Your task to perform on an android device: delete the emails in spam in the gmail app Image 0: 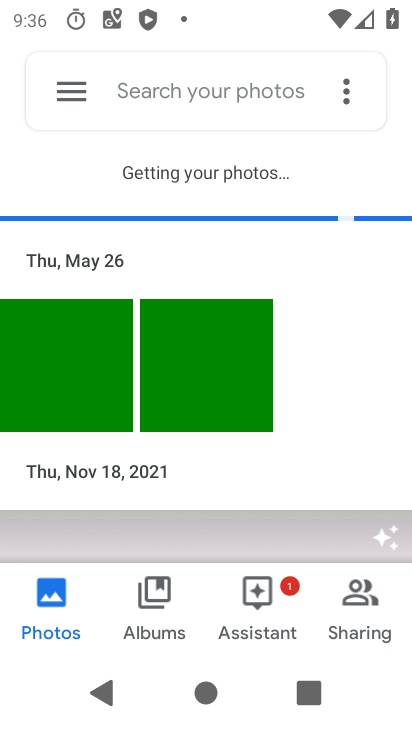
Step 0: press home button
Your task to perform on an android device: delete the emails in spam in the gmail app Image 1: 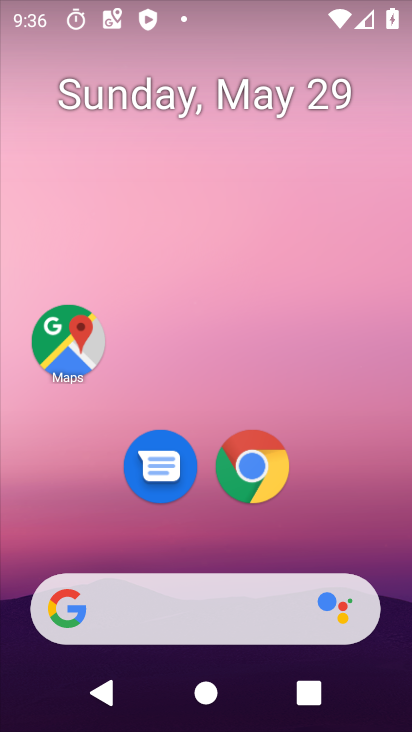
Step 1: drag from (210, 551) to (232, 196)
Your task to perform on an android device: delete the emails in spam in the gmail app Image 2: 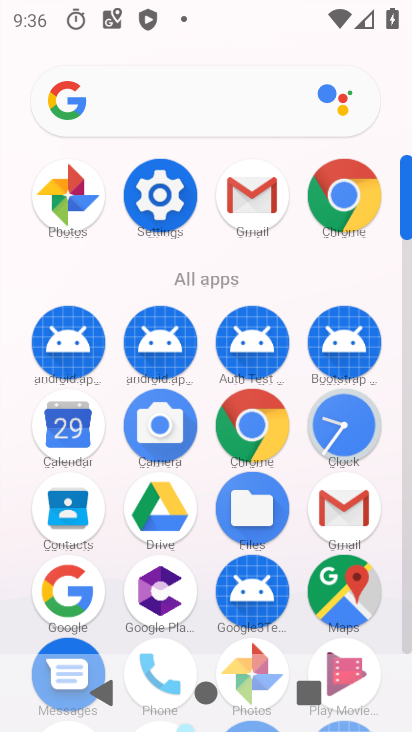
Step 2: click (234, 204)
Your task to perform on an android device: delete the emails in spam in the gmail app Image 3: 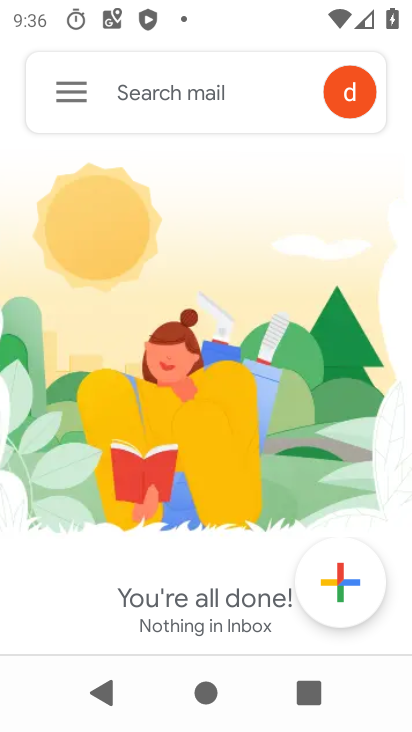
Step 3: click (57, 88)
Your task to perform on an android device: delete the emails in spam in the gmail app Image 4: 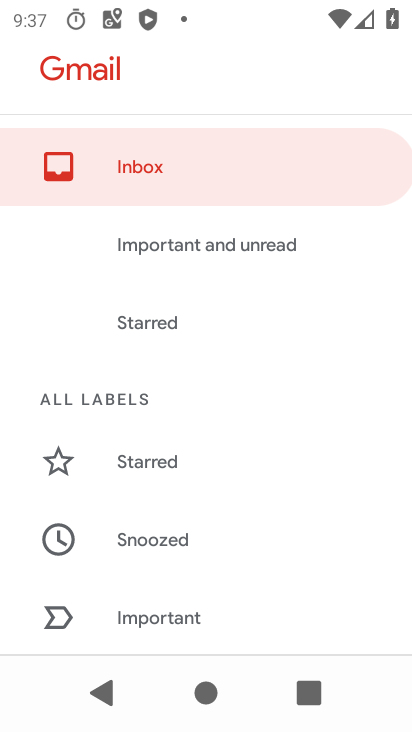
Step 4: click (235, 262)
Your task to perform on an android device: delete the emails in spam in the gmail app Image 5: 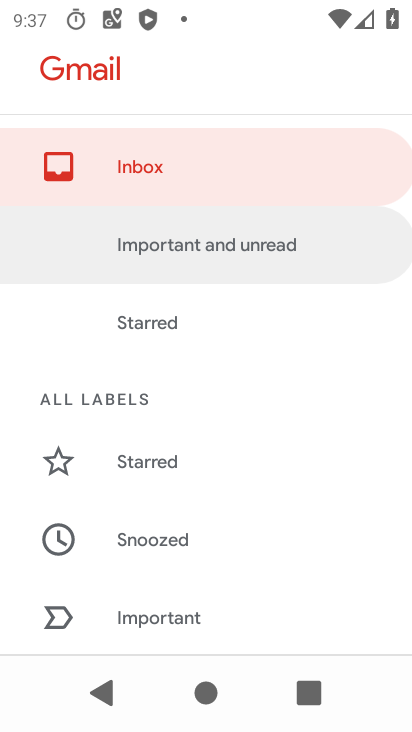
Step 5: drag from (201, 531) to (214, 316)
Your task to perform on an android device: delete the emails in spam in the gmail app Image 6: 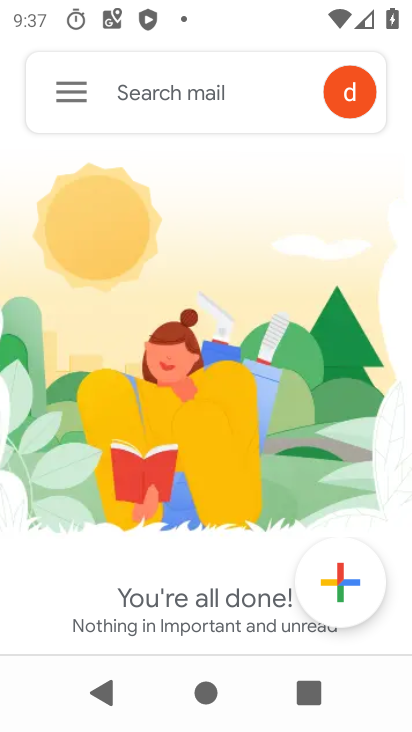
Step 6: click (66, 99)
Your task to perform on an android device: delete the emails in spam in the gmail app Image 7: 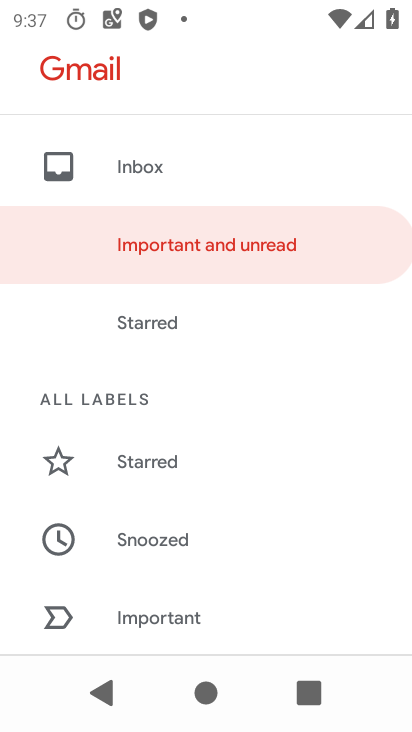
Step 7: drag from (195, 275) to (222, 193)
Your task to perform on an android device: delete the emails in spam in the gmail app Image 8: 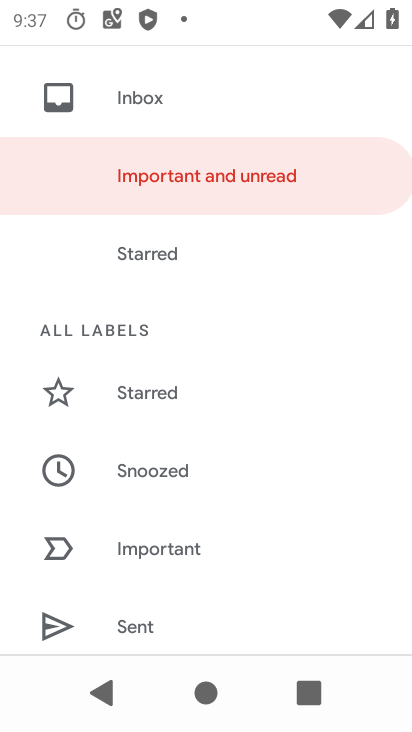
Step 8: drag from (207, 527) to (238, 301)
Your task to perform on an android device: delete the emails in spam in the gmail app Image 9: 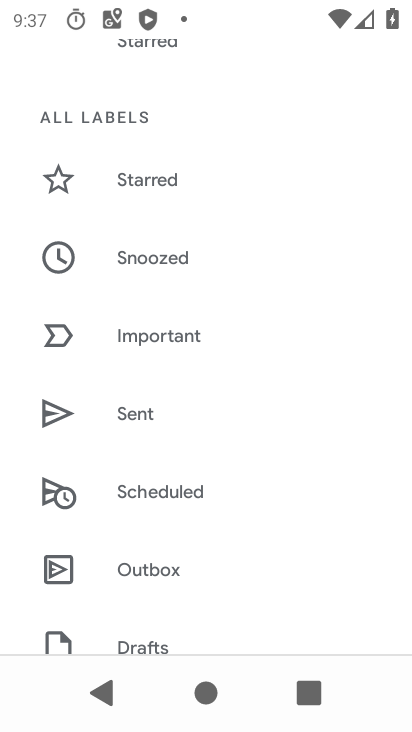
Step 9: drag from (193, 545) to (210, 347)
Your task to perform on an android device: delete the emails in spam in the gmail app Image 10: 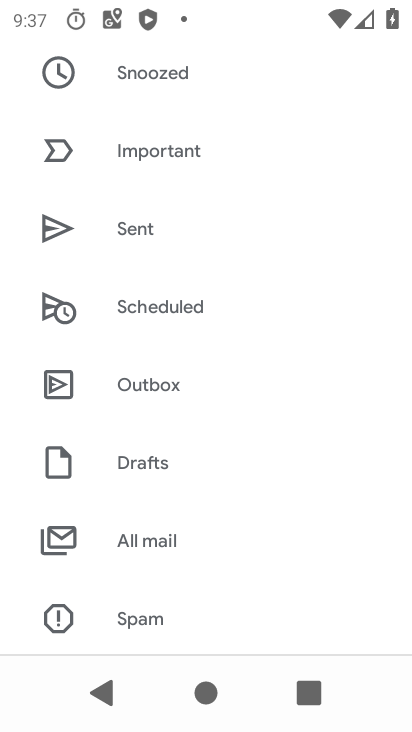
Step 10: click (171, 612)
Your task to perform on an android device: delete the emails in spam in the gmail app Image 11: 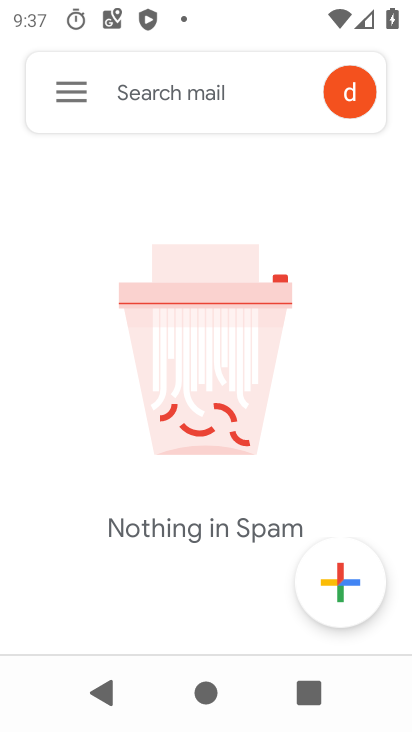
Step 11: task complete